Your task to perform on an android device: Open sound settings Image 0: 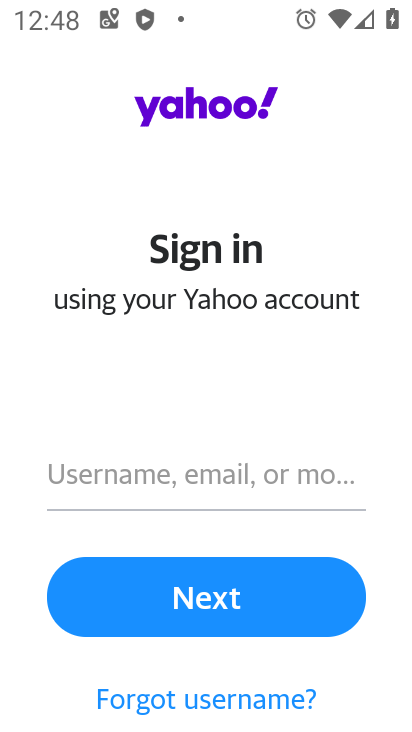
Step 0: press home button
Your task to perform on an android device: Open sound settings Image 1: 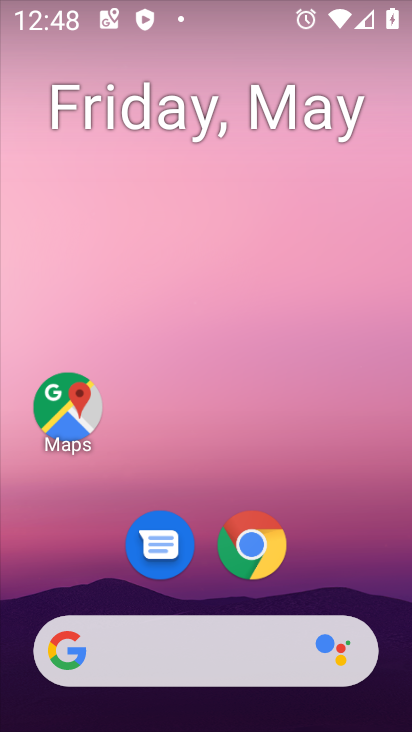
Step 1: drag from (322, 557) to (330, 173)
Your task to perform on an android device: Open sound settings Image 2: 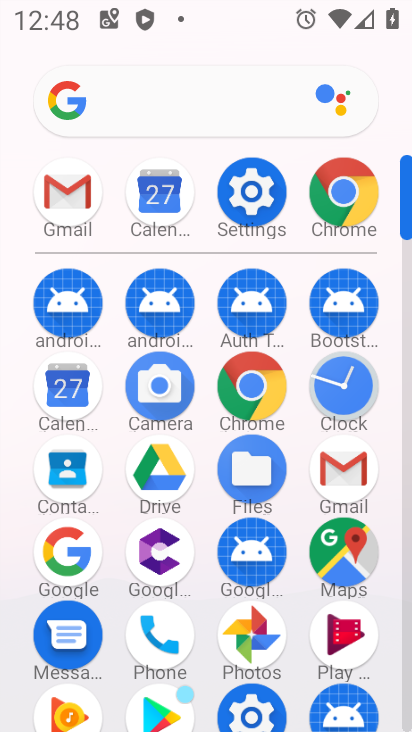
Step 2: click (270, 181)
Your task to perform on an android device: Open sound settings Image 3: 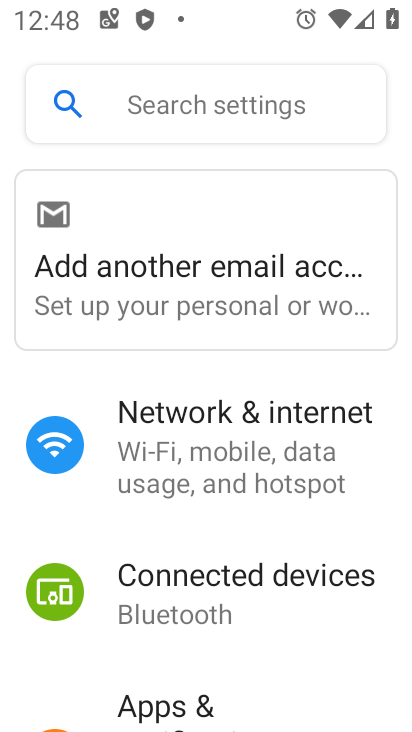
Step 3: drag from (220, 616) to (237, 215)
Your task to perform on an android device: Open sound settings Image 4: 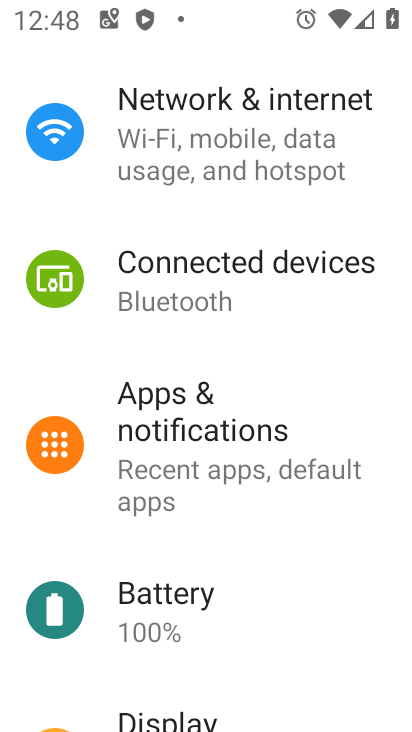
Step 4: drag from (207, 542) to (197, 264)
Your task to perform on an android device: Open sound settings Image 5: 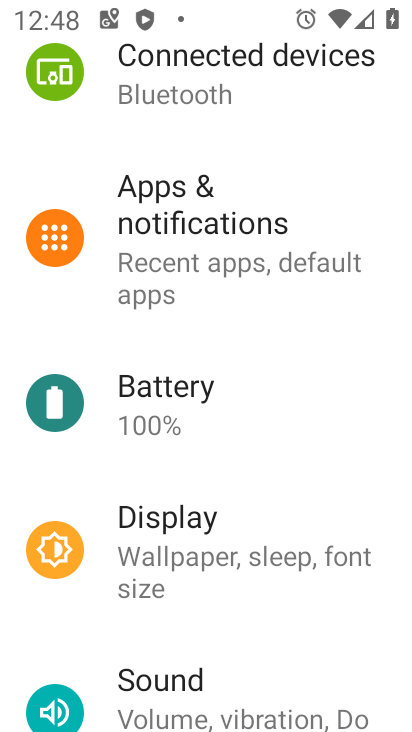
Step 5: drag from (246, 473) to (259, 182)
Your task to perform on an android device: Open sound settings Image 6: 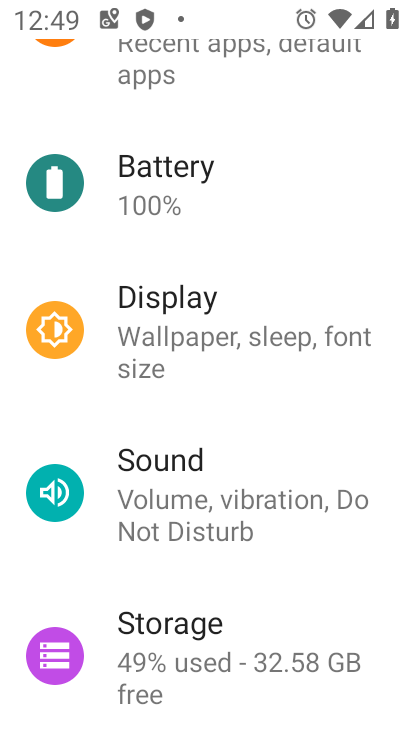
Step 6: click (217, 456)
Your task to perform on an android device: Open sound settings Image 7: 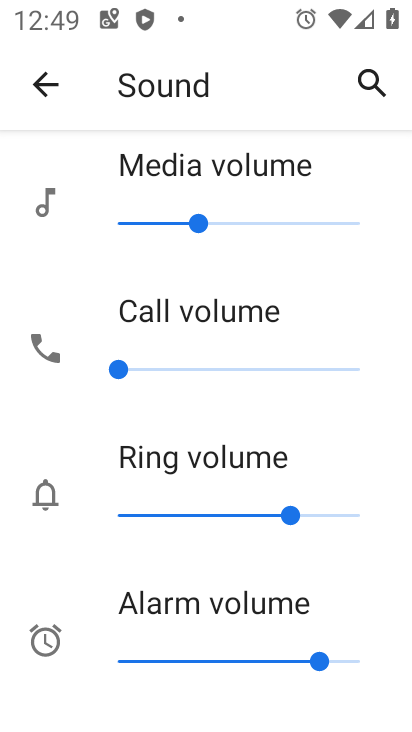
Step 7: task complete